Your task to perform on an android device: Go to Amazon Image 0: 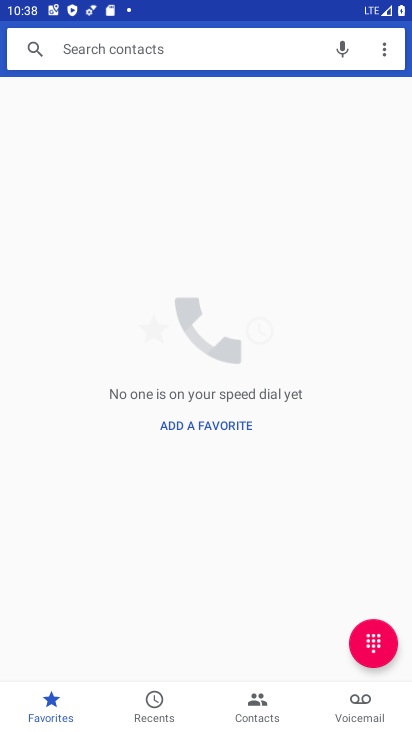
Step 0: press home button
Your task to perform on an android device: Go to Amazon Image 1: 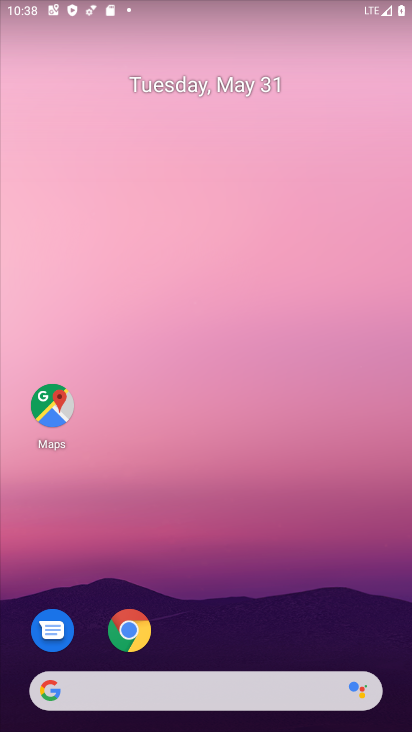
Step 1: click (205, 696)
Your task to perform on an android device: Go to Amazon Image 2: 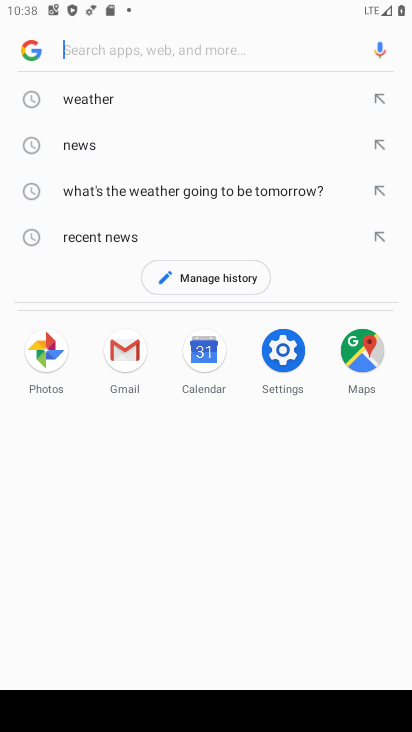
Step 2: type "Amazon"
Your task to perform on an android device: Go to Amazon Image 3: 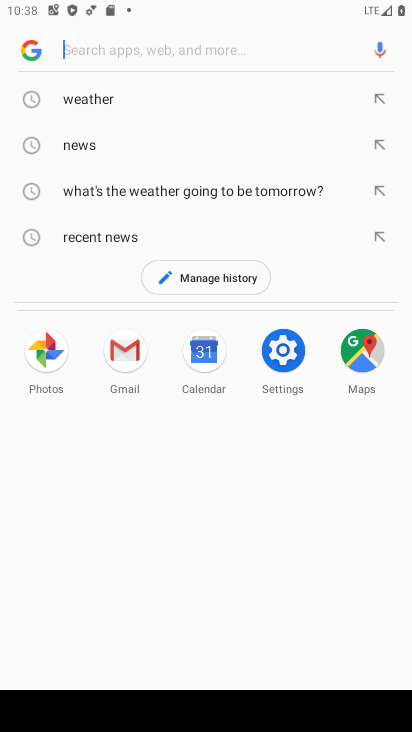
Step 3: click (131, 55)
Your task to perform on an android device: Go to Amazon Image 4: 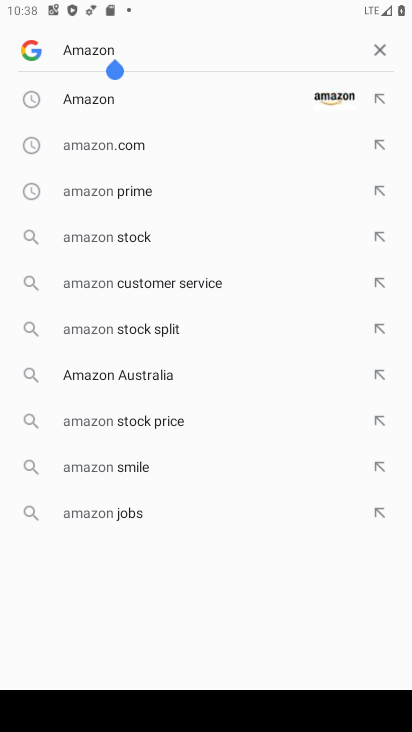
Step 4: click (132, 102)
Your task to perform on an android device: Go to Amazon Image 5: 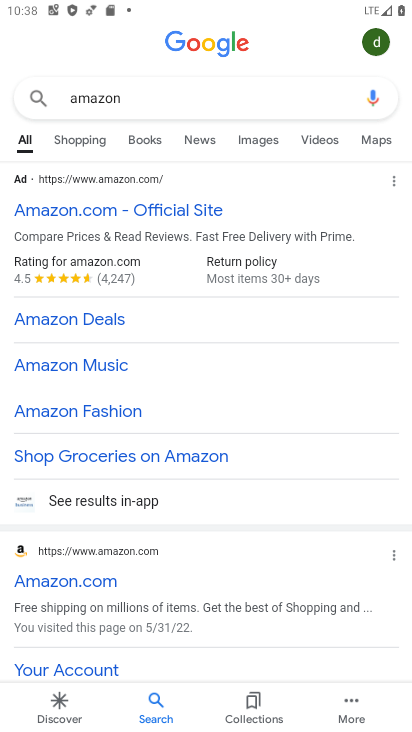
Step 5: click (32, 582)
Your task to perform on an android device: Go to Amazon Image 6: 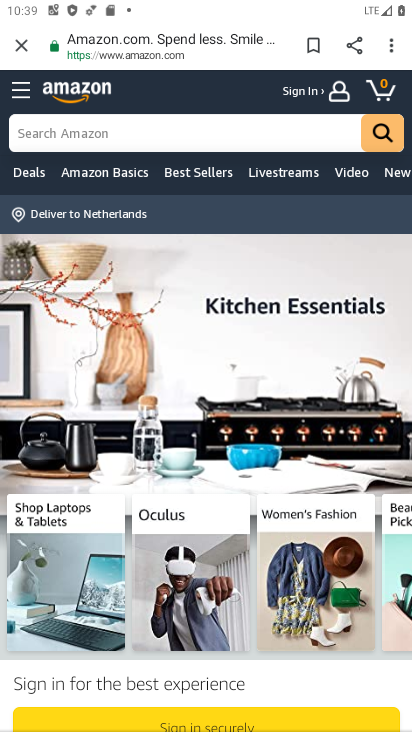
Step 6: task complete